Your task to perform on an android device: Go to Maps Image 0: 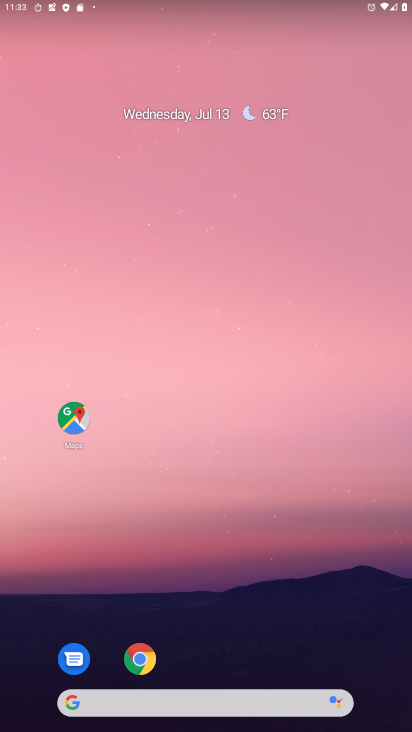
Step 0: click (70, 419)
Your task to perform on an android device: Go to Maps Image 1: 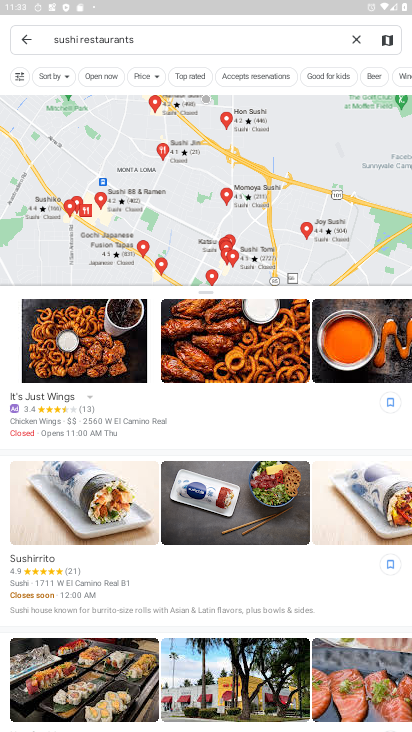
Step 1: task complete